Your task to perform on an android device: turn off improve location accuracy Image 0: 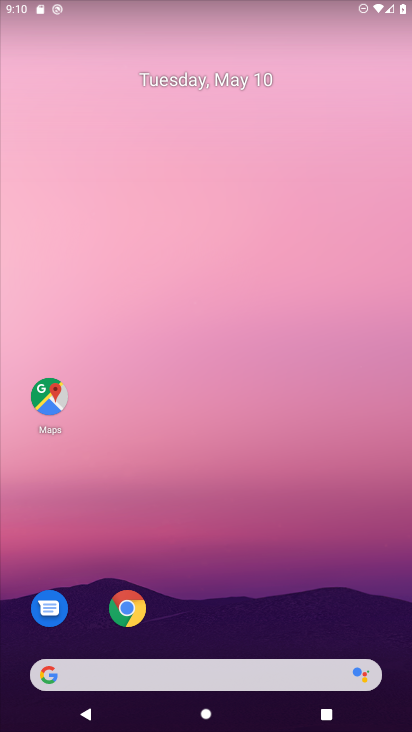
Step 0: drag from (363, 598) to (80, 66)
Your task to perform on an android device: turn off improve location accuracy Image 1: 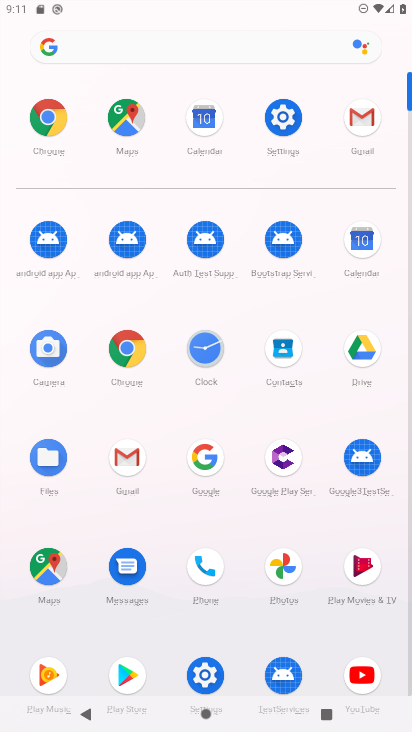
Step 1: click (212, 665)
Your task to perform on an android device: turn off improve location accuracy Image 2: 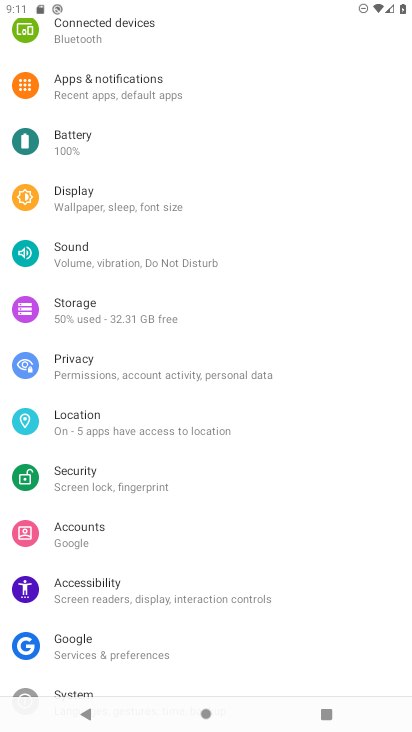
Step 2: click (96, 419)
Your task to perform on an android device: turn off improve location accuracy Image 3: 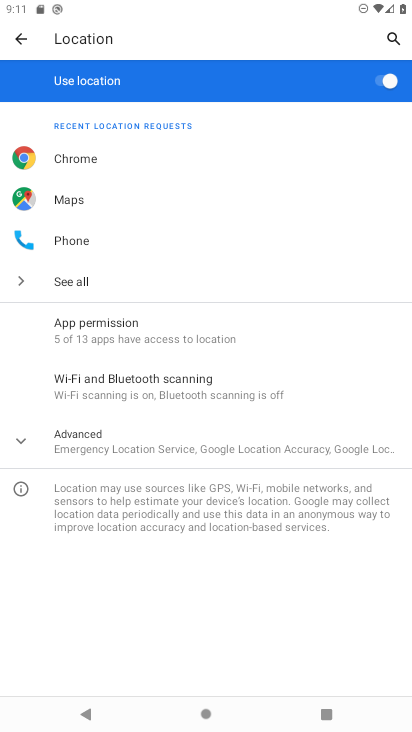
Step 3: click (94, 435)
Your task to perform on an android device: turn off improve location accuracy Image 4: 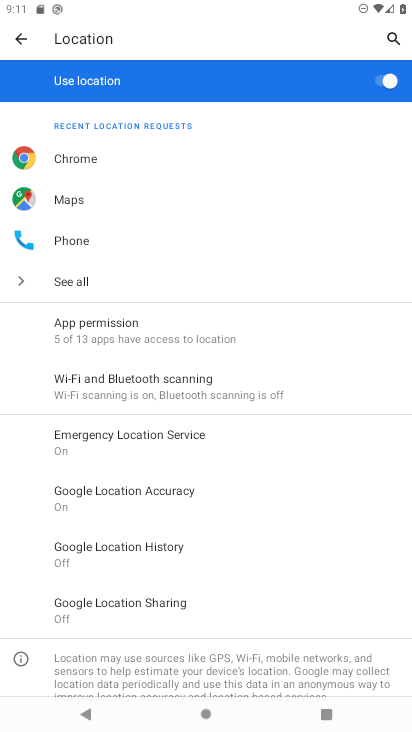
Step 4: click (110, 498)
Your task to perform on an android device: turn off improve location accuracy Image 5: 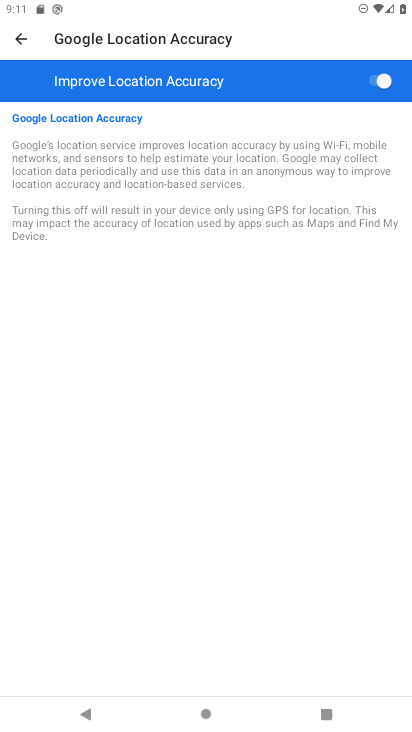
Step 5: click (366, 78)
Your task to perform on an android device: turn off improve location accuracy Image 6: 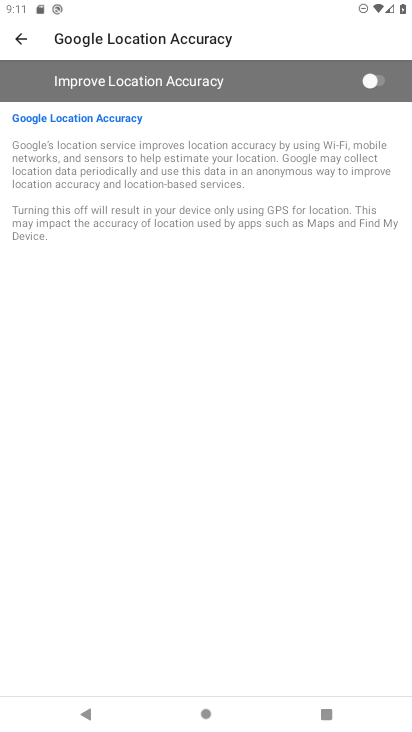
Step 6: task complete